Your task to perform on an android device: see tabs open on other devices in the chrome app Image 0: 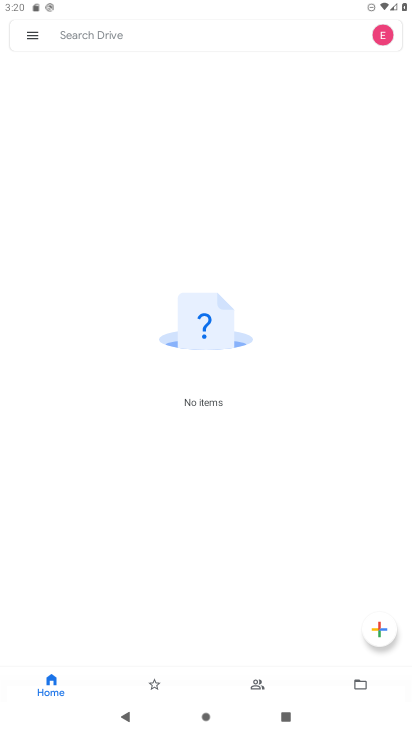
Step 0: press home button
Your task to perform on an android device: see tabs open on other devices in the chrome app Image 1: 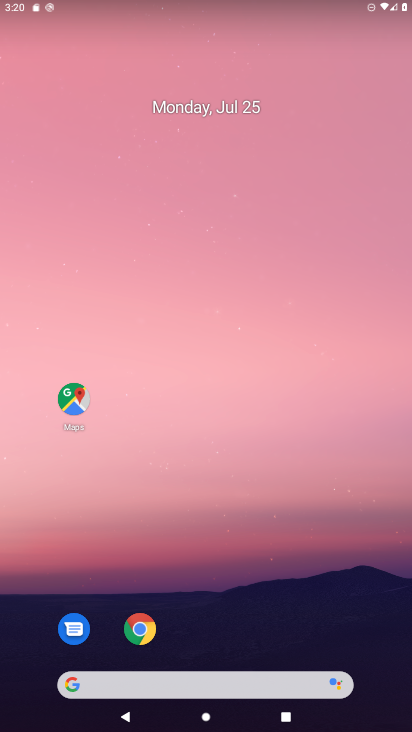
Step 1: click (134, 627)
Your task to perform on an android device: see tabs open on other devices in the chrome app Image 2: 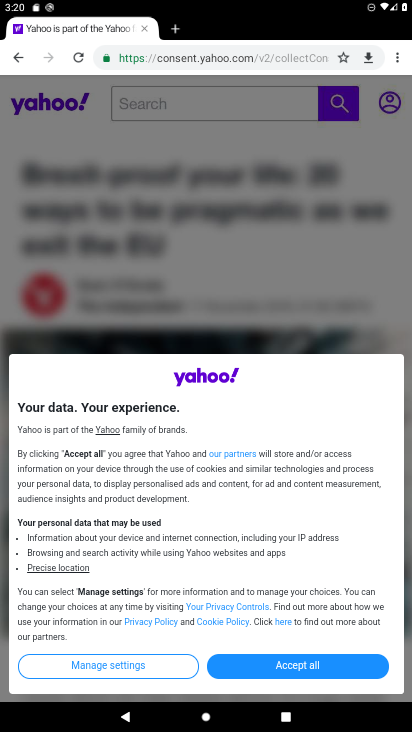
Step 2: click (397, 51)
Your task to perform on an android device: see tabs open on other devices in the chrome app Image 3: 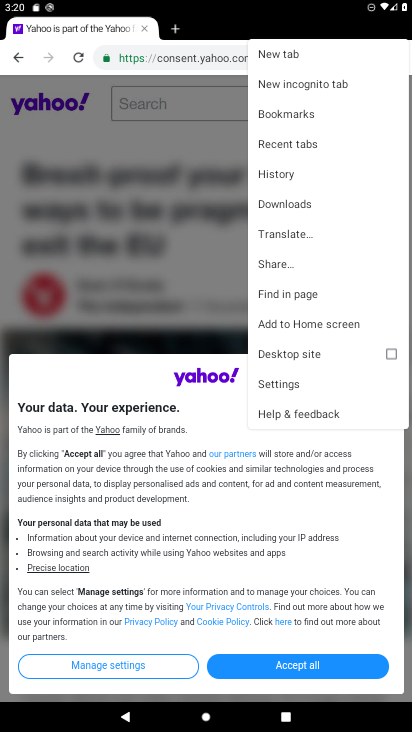
Step 3: click (282, 147)
Your task to perform on an android device: see tabs open on other devices in the chrome app Image 4: 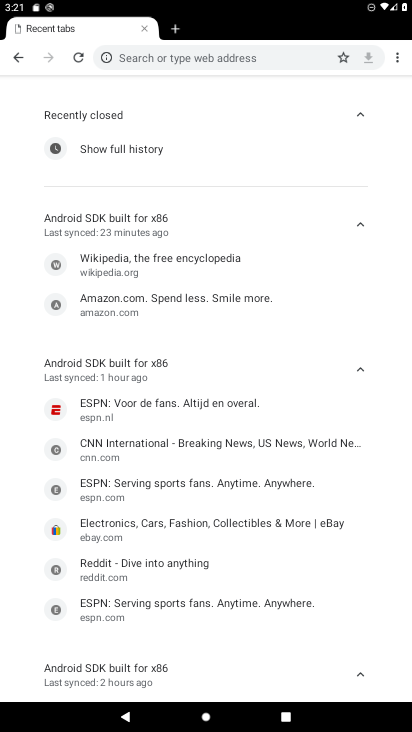
Step 4: task complete